Your task to perform on an android device: check the backup settings in the google photos Image 0: 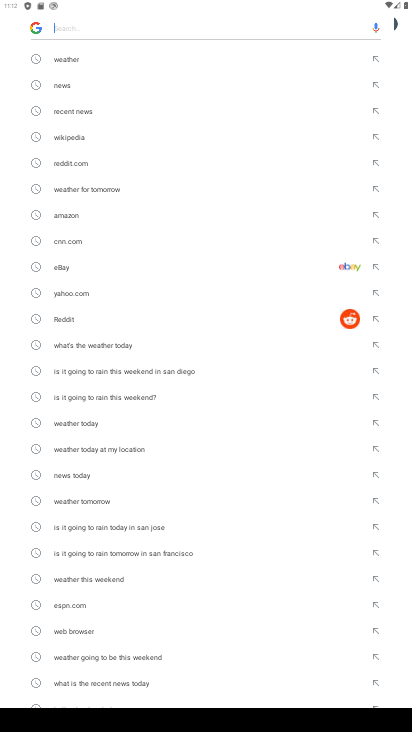
Step 0: press home button
Your task to perform on an android device: check the backup settings in the google photos Image 1: 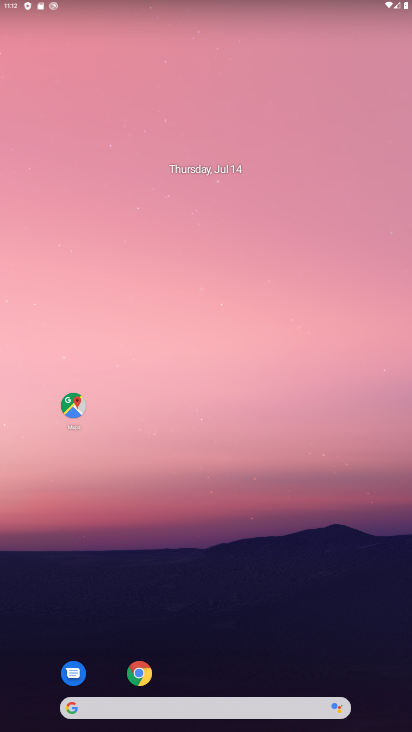
Step 1: drag from (286, 617) to (203, 6)
Your task to perform on an android device: check the backup settings in the google photos Image 2: 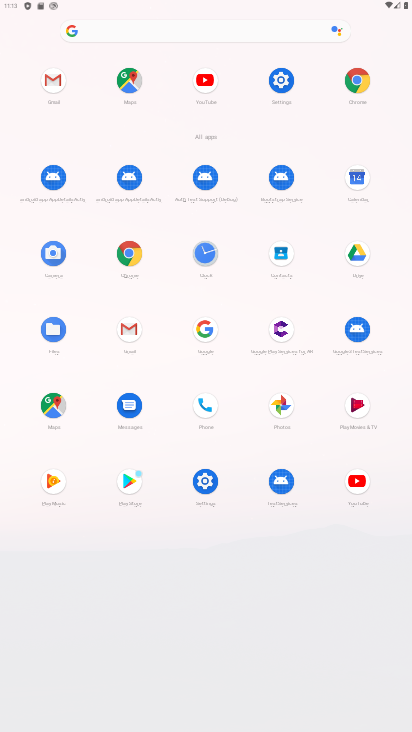
Step 2: click (280, 408)
Your task to perform on an android device: check the backup settings in the google photos Image 3: 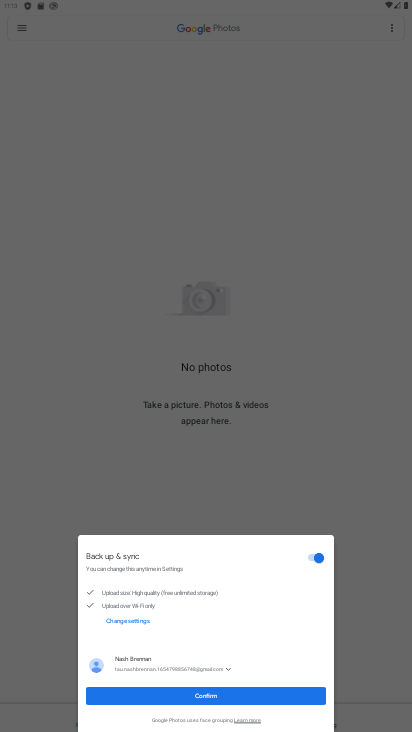
Step 3: click (74, 17)
Your task to perform on an android device: check the backup settings in the google photos Image 4: 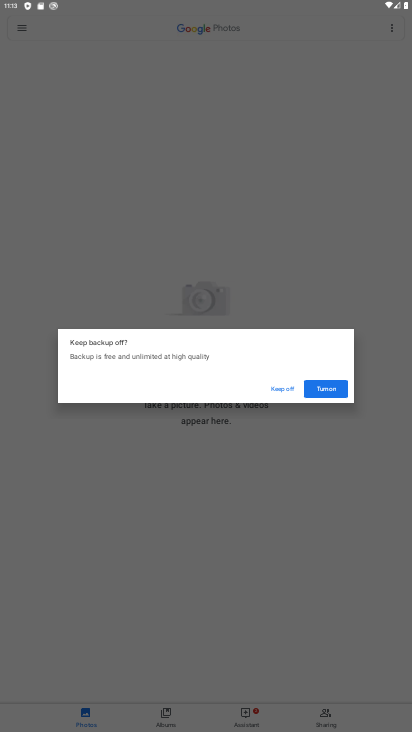
Step 4: click (312, 390)
Your task to perform on an android device: check the backup settings in the google photos Image 5: 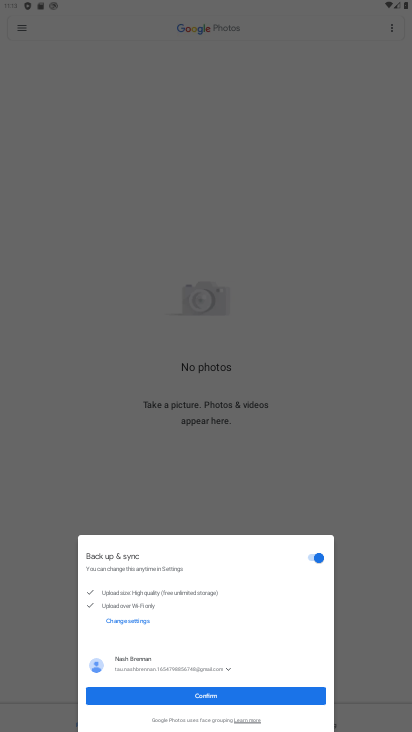
Step 5: click (238, 695)
Your task to perform on an android device: check the backup settings in the google photos Image 6: 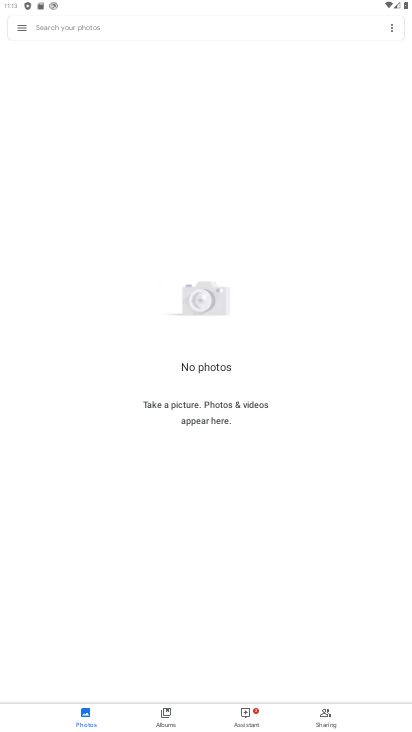
Step 6: click (24, 29)
Your task to perform on an android device: check the backup settings in the google photos Image 7: 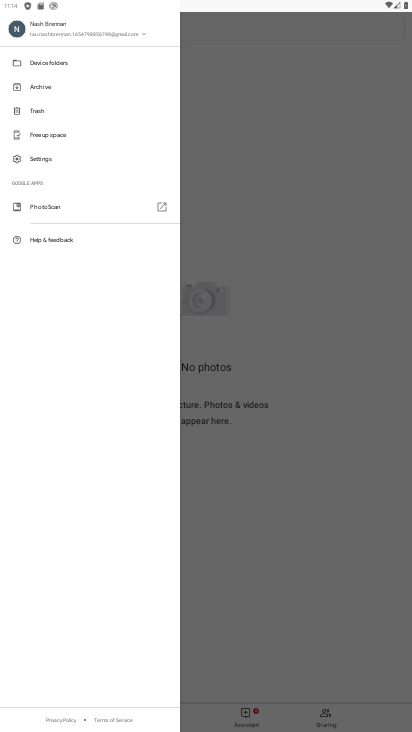
Step 7: click (54, 159)
Your task to perform on an android device: check the backup settings in the google photos Image 8: 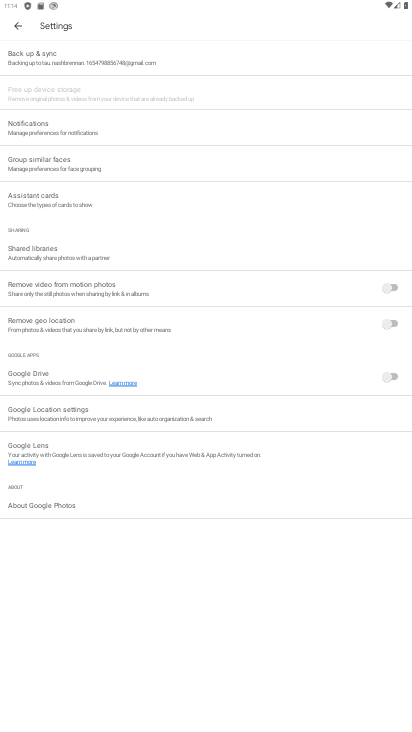
Step 8: click (143, 66)
Your task to perform on an android device: check the backup settings in the google photos Image 9: 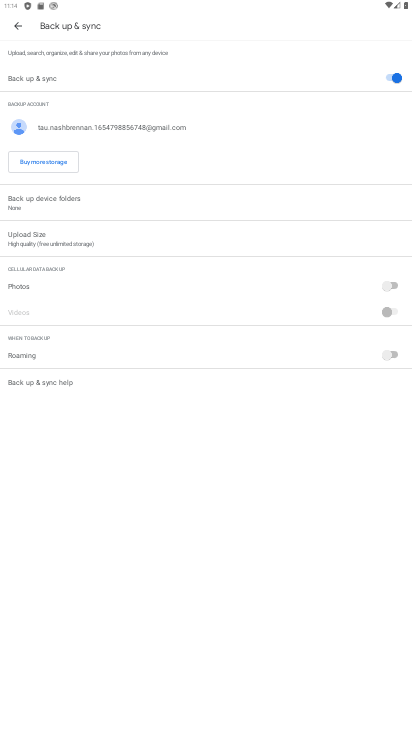
Step 9: task complete